Your task to perform on an android device: Go to Yahoo.com Image 0: 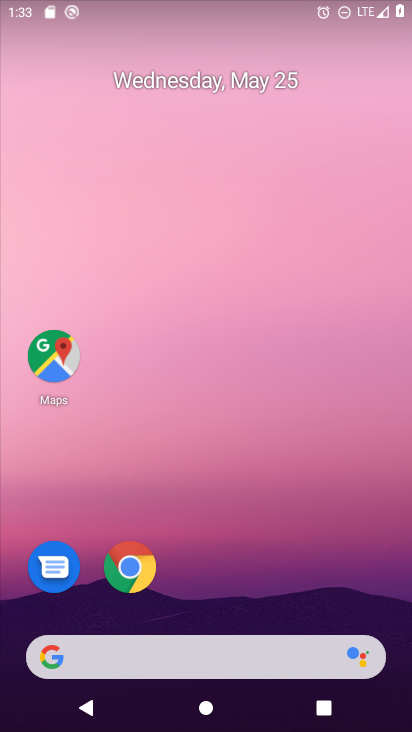
Step 0: click (138, 565)
Your task to perform on an android device: Go to Yahoo.com Image 1: 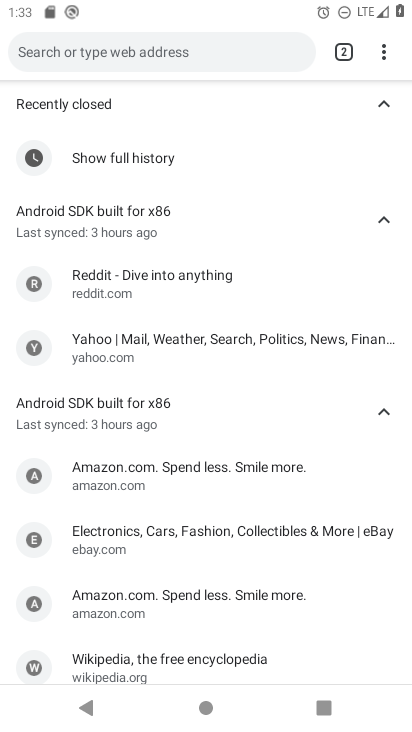
Step 1: click (257, 47)
Your task to perform on an android device: Go to Yahoo.com Image 2: 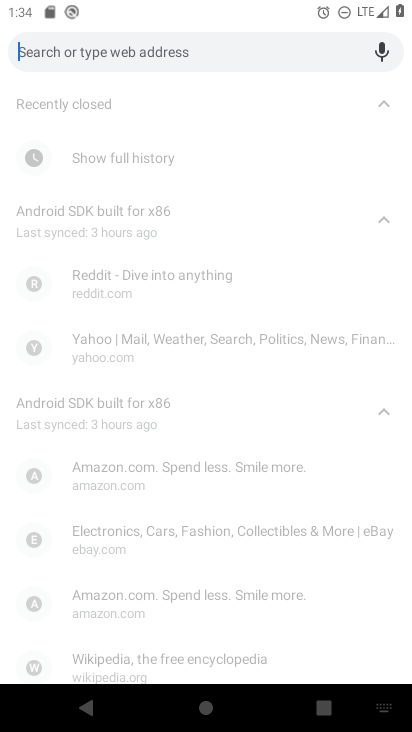
Step 2: type "Yahoo.com"
Your task to perform on an android device: Go to Yahoo.com Image 3: 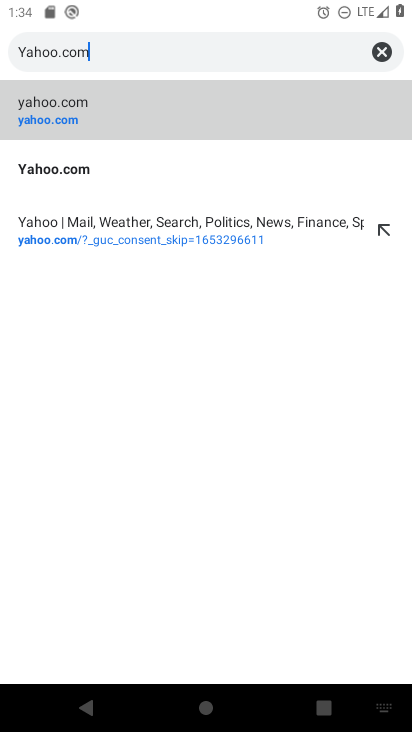
Step 3: click (52, 174)
Your task to perform on an android device: Go to Yahoo.com Image 4: 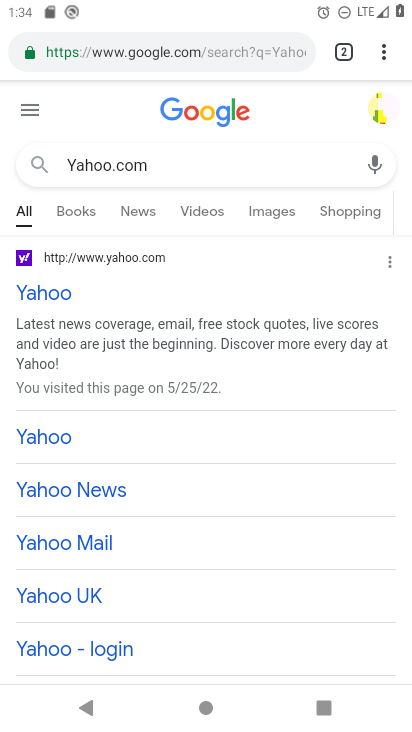
Step 4: task complete